Your task to perform on an android device: Open Yahoo.com Image 0: 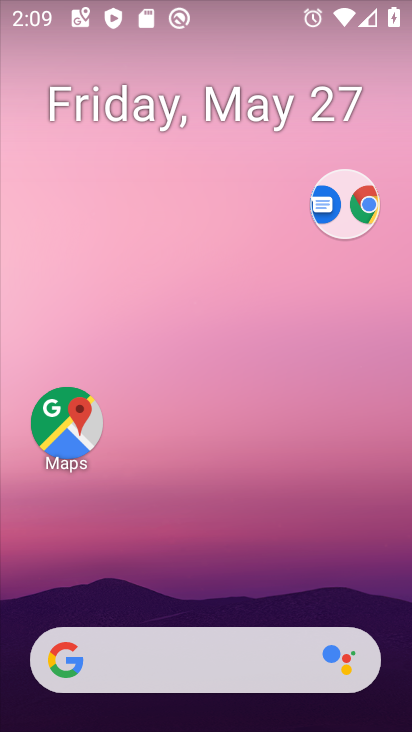
Step 0: drag from (196, 650) to (270, 95)
Your task to perform on an android device: Open Yahoo.com Image 1: 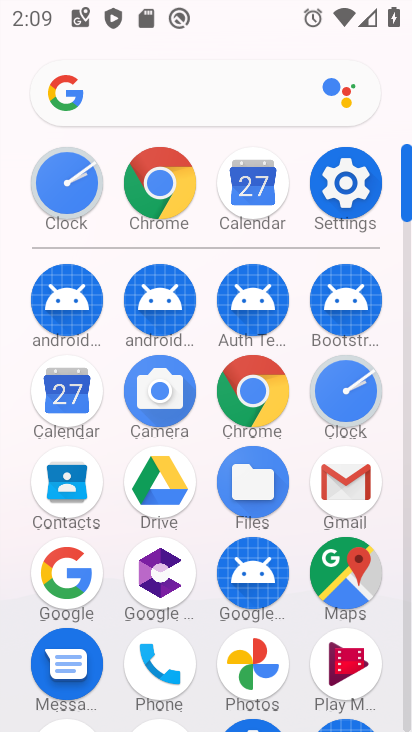
Step 1: click (168, 198)
Your task to perform on an android device: Open Yahoo.com Image 2: 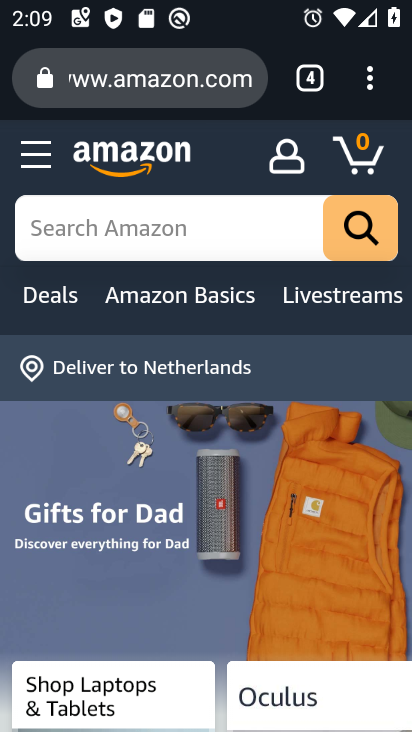
Step 2: click (192, 84)
Your task to perform on an android device: Open Yahoo.com Image 3: 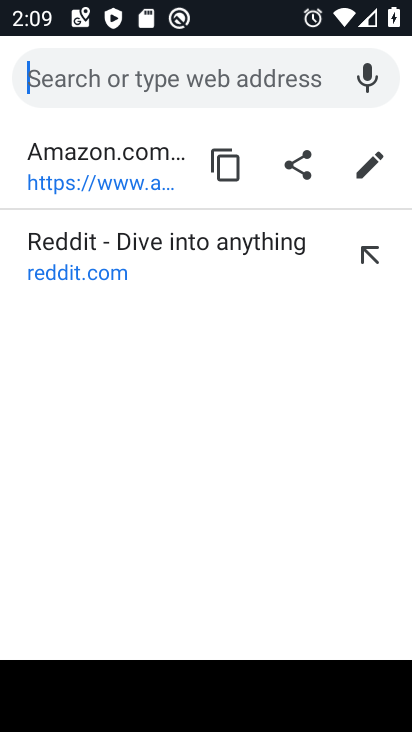
Step 3: type "yahoo"
Your task to perform on an android device: Open Yahoo.com Image 4: 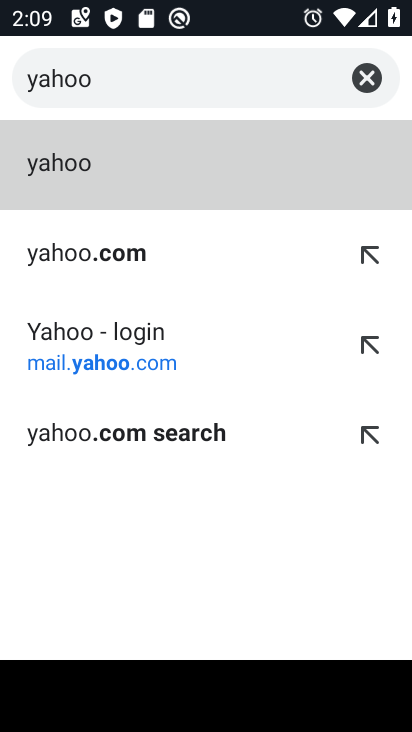
Step 4: click (122, 334)
Your task to perform on an android device: Open Yahoo.com Image 5: 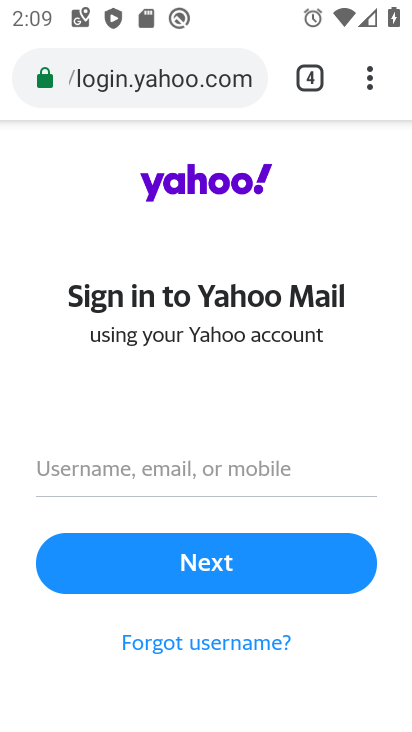
Step 5: task complete